Your task to perform on an android device: star an email in the gmail app Image 0: 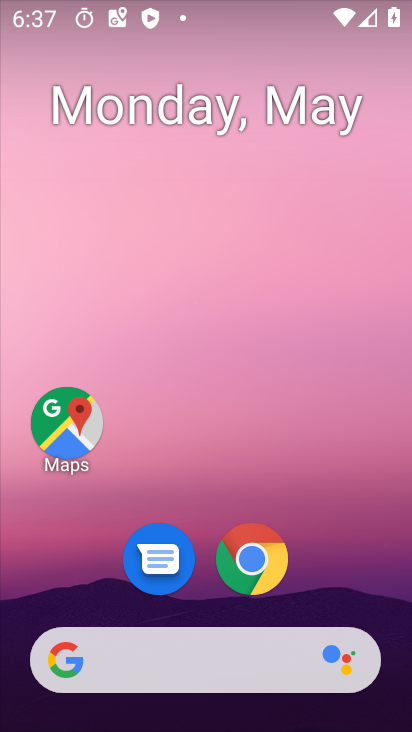
Step 0: drag from (386, 654) to (316, 0)
Your task to perform on an android device: star an email in the gmail app Image 1: 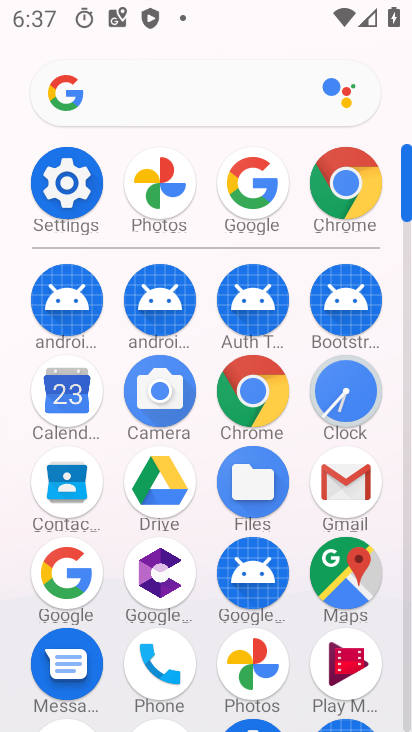
Step 1: click (331, 491)
Your task to perform on an android device: star an email in the gmail app Image 2: 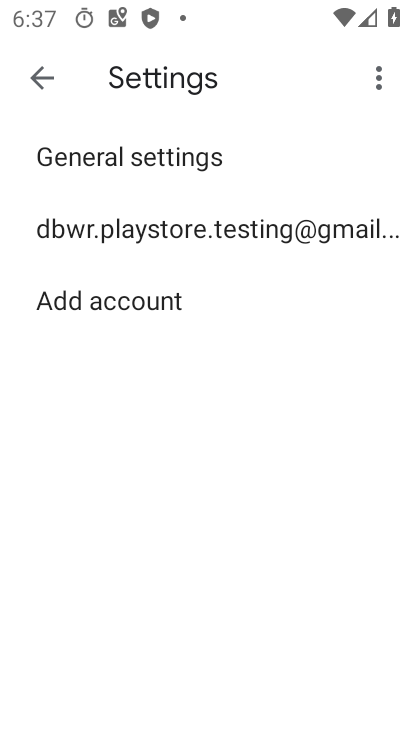
Step 2: press back button
Your task to perform on an android device: star an email in the gmail app Image 3: 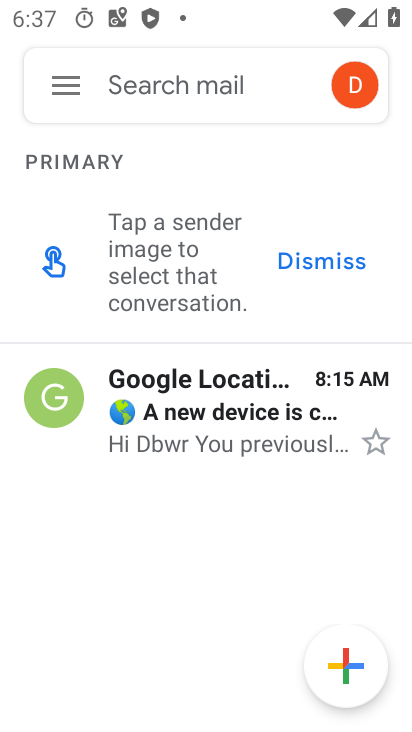
Step 3: click (280, 443)
Your task to perform on an android device: star an email in the gmail app Image 4: 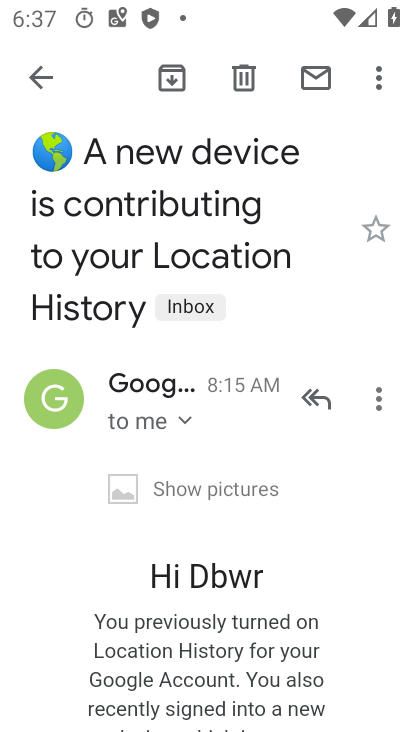
Step 4: click (382, 235)
Your task to perform on an android device: star an email in the gmail app Image 5: 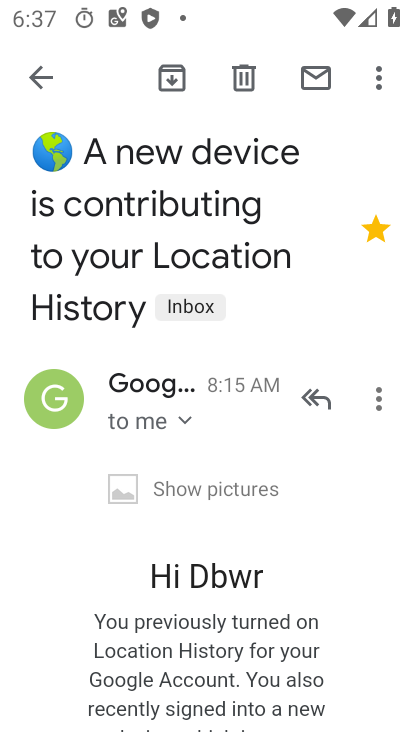
Step 5: task complete